Your task to perform on an android device: Go to internet settings Image 0: 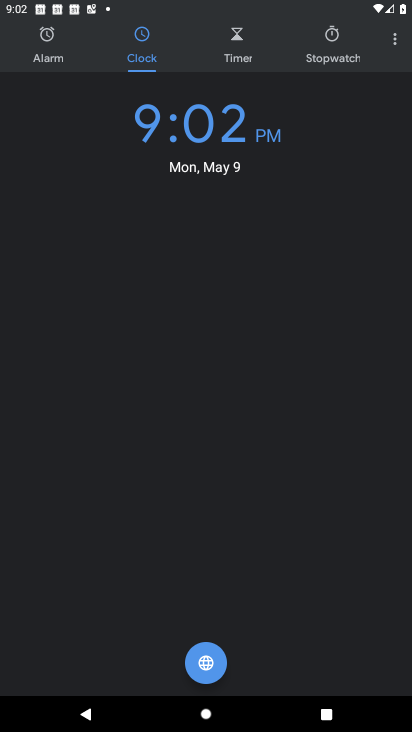
Step 0: press home button
Your task to perform on an android device: Go to internet settings Image 1: 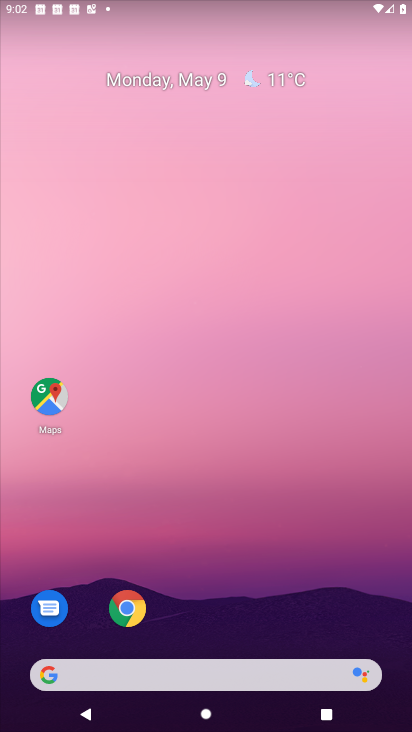
Step 1: drag from (129, 643) to (193, 261)
Your task to perform on an android device: Go to internet settings Image 2: 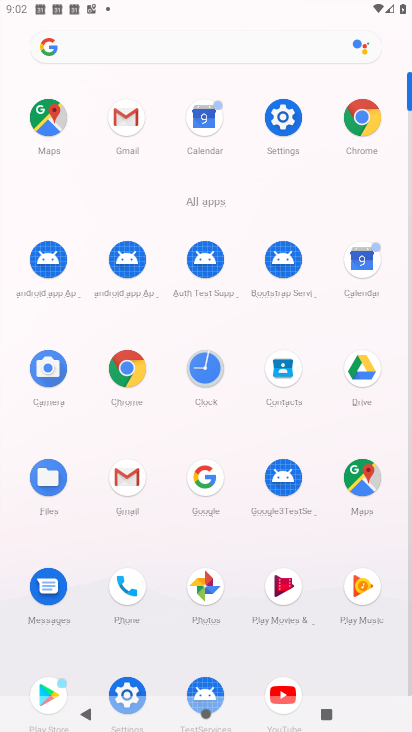
Step 2: click (125, 686)
Your task to perform on an android device: Go to internet settings Image 3: 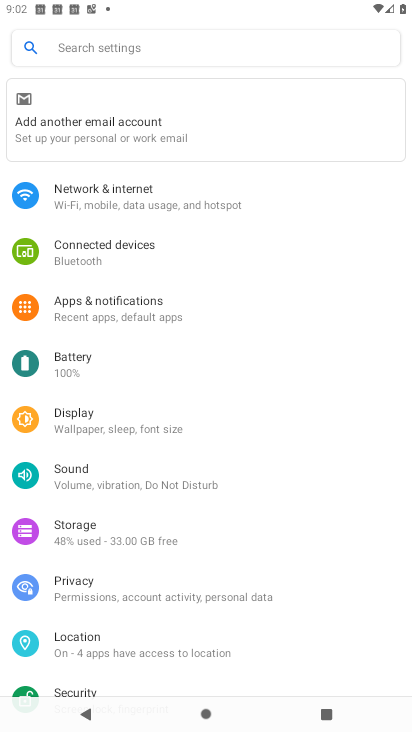
Step 3: click (120, 201)
Your task to perform on an android device: Go to internet settings Image 4: 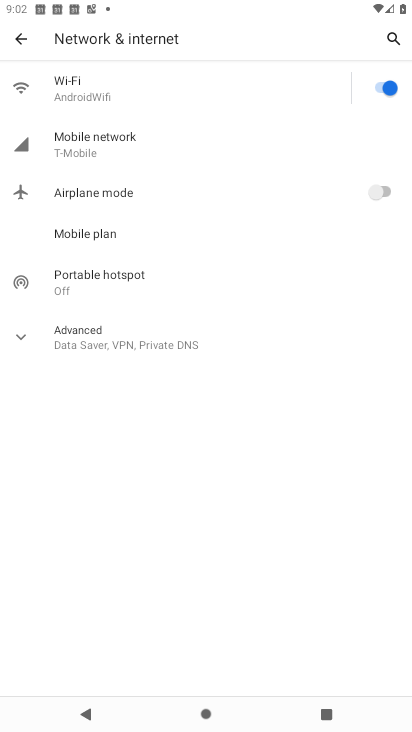
Step 4: task complete